Your task to perform on an android device: What is the news today? Image 0: 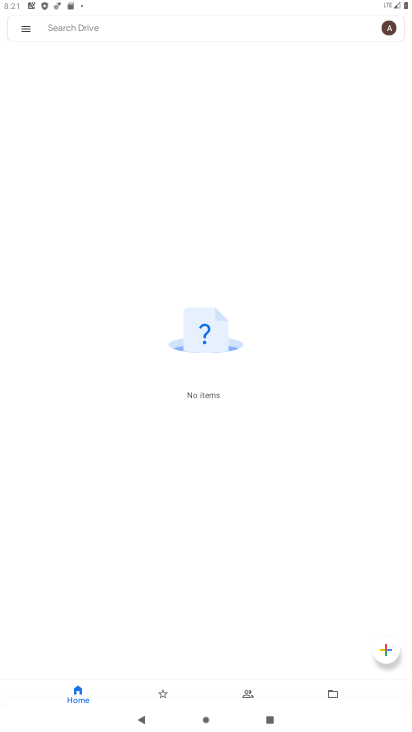
Step 0: press home button
Your task to perform on an android device: What is the news today? Image 1: 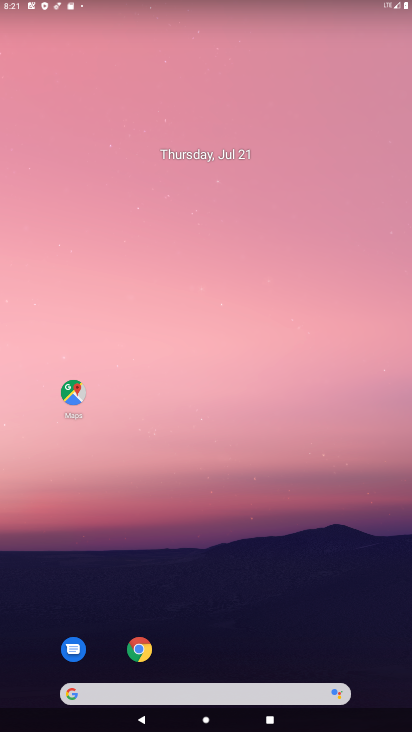
Step 1: click (193, 687)
Your task to perform on an android device: What is the news today? Image 2: 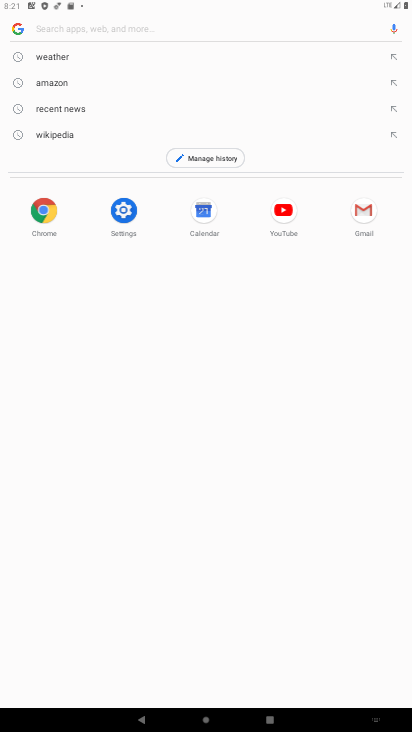
Step 2: type "news today"
Your task to perform on an android device: What is the news today? Image 3: 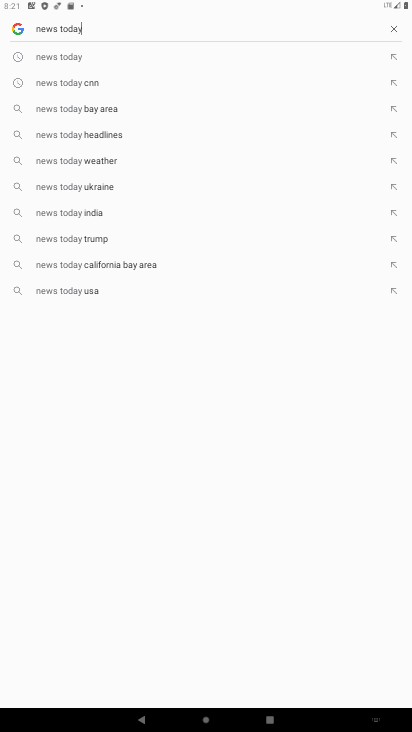
Step 3: click (64, 49)
Your task to perform on an android device: What is the news today? Image 4: 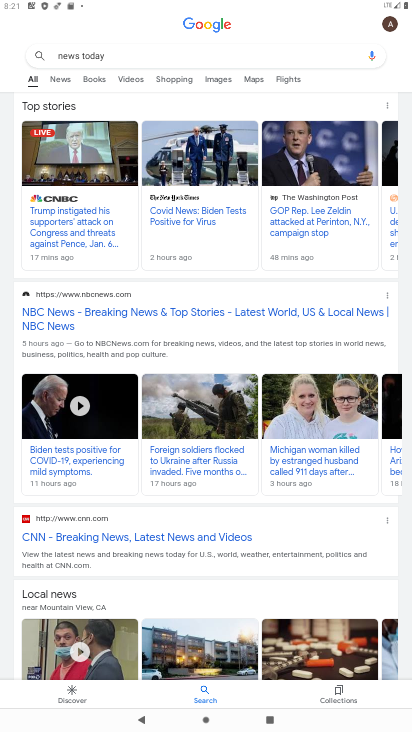
Step 4: task complete